Your task to perform on an android device: Open privacy settings Image 0: 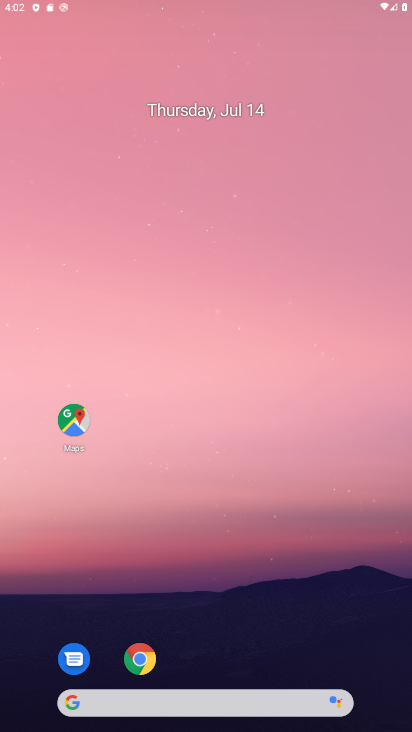
Step 0: press back button
Your task to perform on an android device: Open privacy settings Image 1: 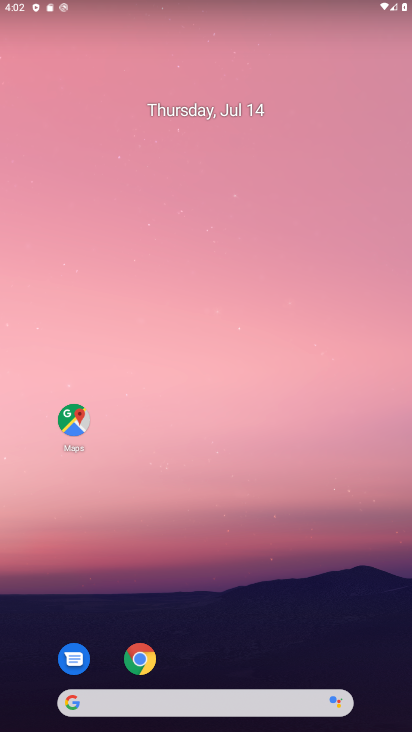
Step 1: drag from (260, 667) to (192, 276)
Your task to perform on an android device: Open privacy settings Image 2: 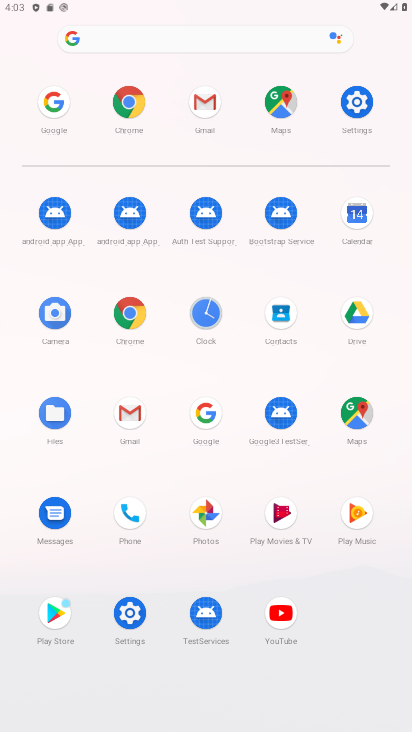
Step 2: click (356, 101)
Your task to perform on an android device: Open privacy settings Image 3: 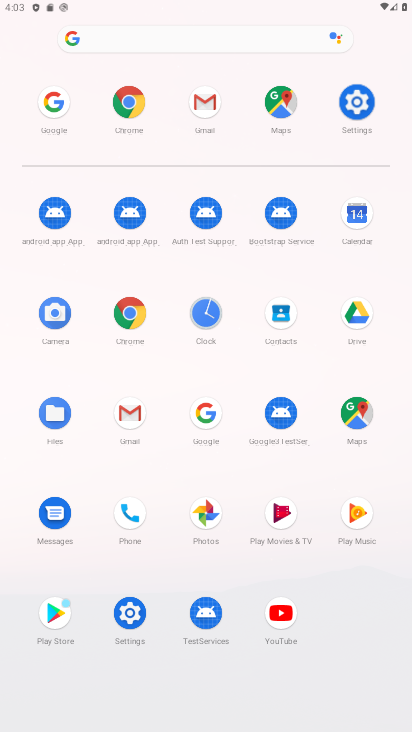
Step 3: click (358, 105)
Your task to perform on an android device: Open privacy settings Image 4: 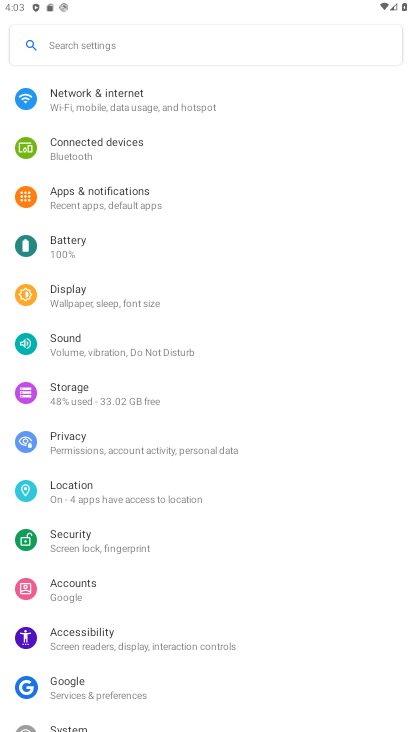
Step 4: click (361, 104)
Your task to perform on an android device: Open privacy settings Image 5: 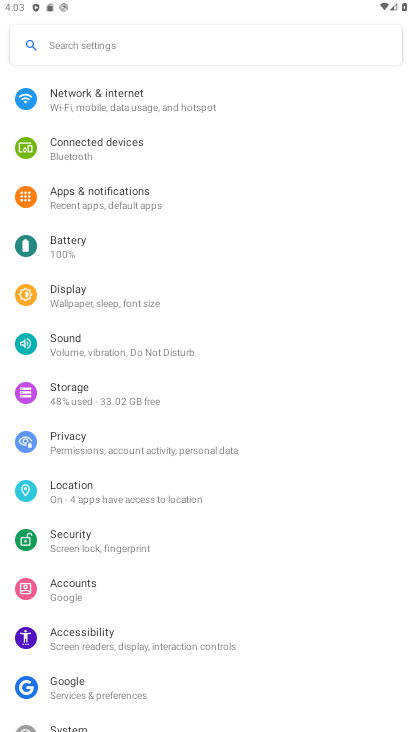
Step 5: click (361, 104)
Your task to perform on an android device: Open privacy settings Image 6: 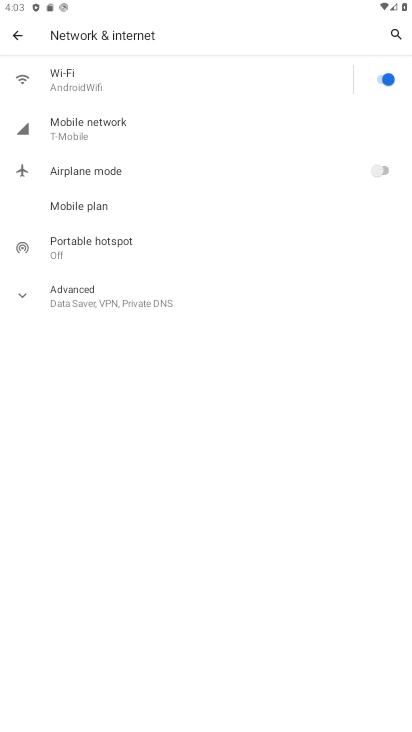
Step 6: click (22, 48)
Your task to perform on an android device: Open privacy settings Image 7: 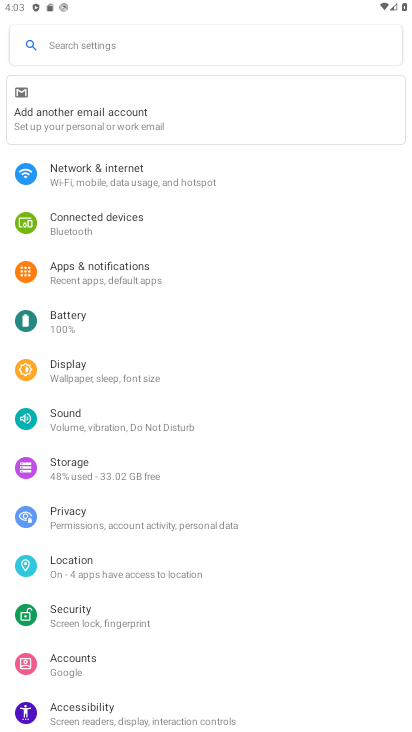
Step 7: click (64, 527)
Your task to perform on an android device: Open privacy settings Image 8: 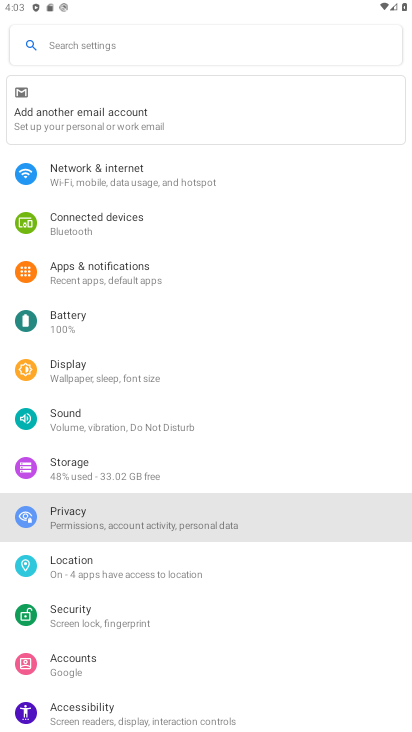
Step 8: click (64, 524)
Your task to perform on an android device: Open privacy settings Image 9: 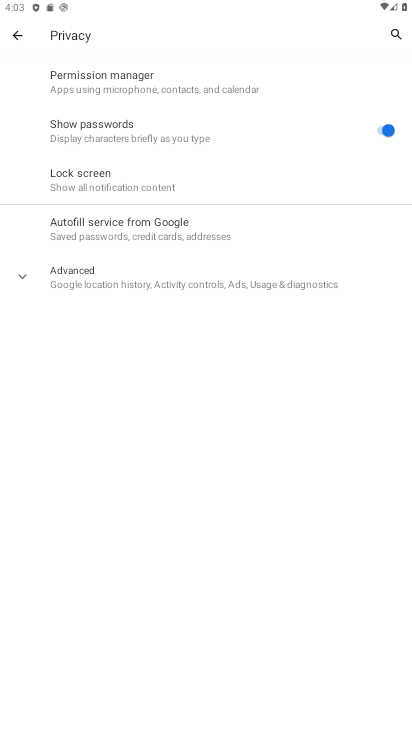
Step 9: task complete